Your task to perform on an android device: toggle javascript in the chrome app Image 0: 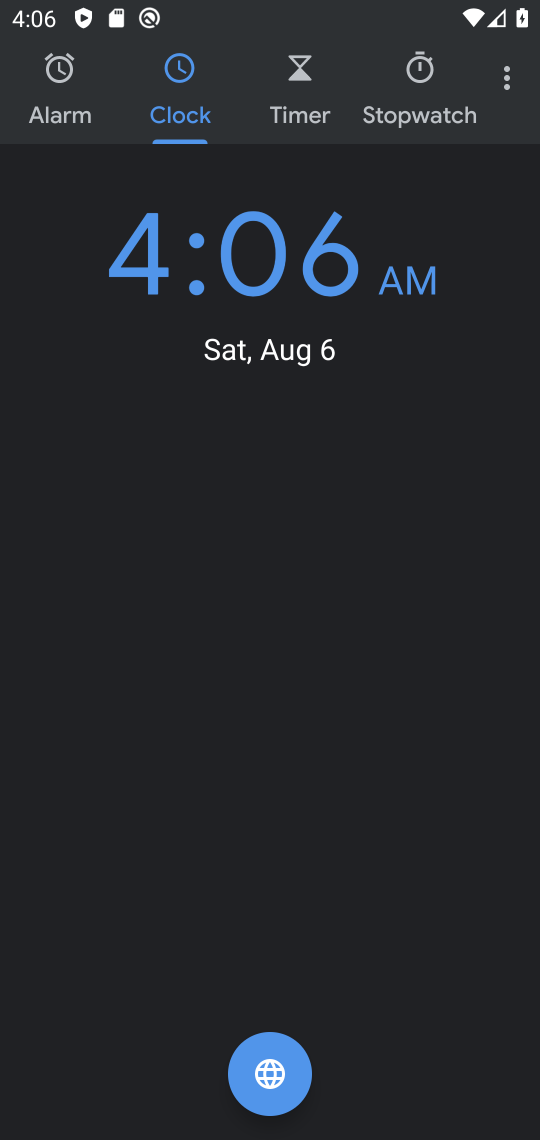
Step 0: press home button
Your task to perform on an android device: toggle javascript in the chrome app Image 1: 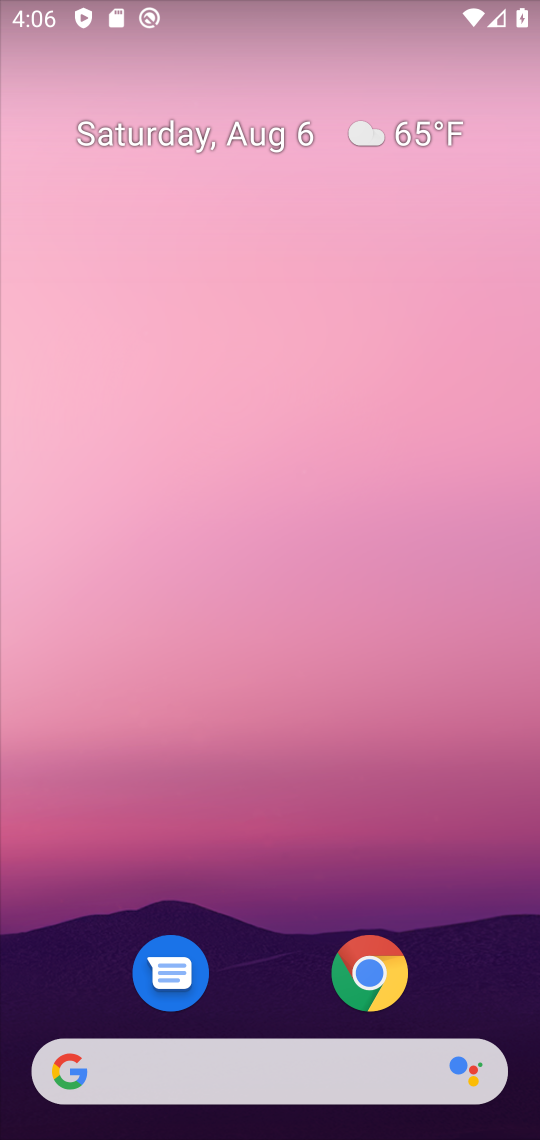
Step 1: drag from (279, 956) to (356, 231)
Your task to perform on an android device: toggle javascript in the chrome app Image 2: 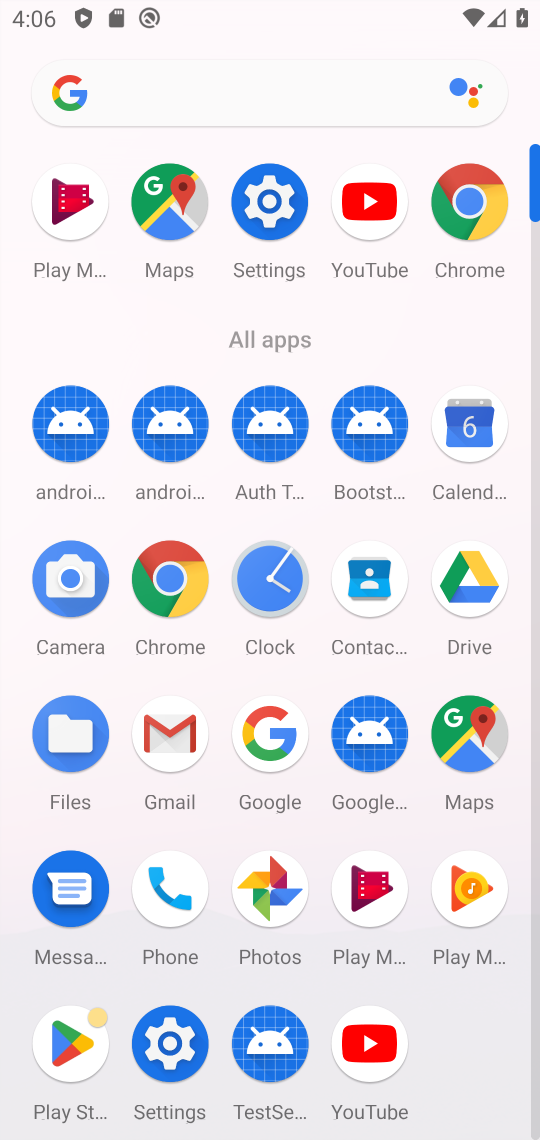
Step 2: click (171, 578)
Your task to perform on an android device: toggle javascript in the chrome app Image 3: 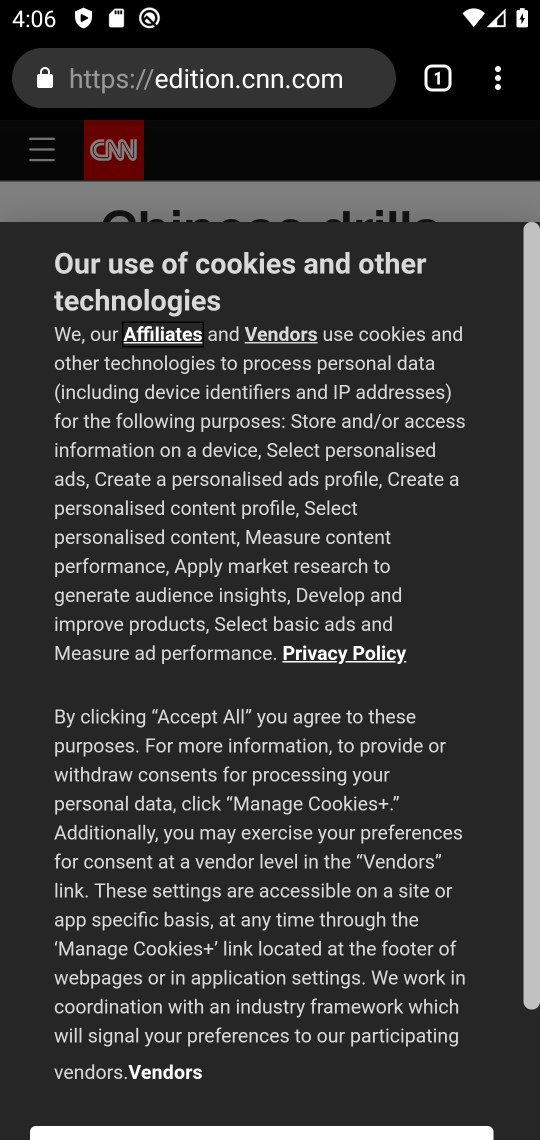
Step 3: drag from (502, 68) to (217, 869)
Your task to perform on an android device: toggle javascript in the chrome app Image 4: 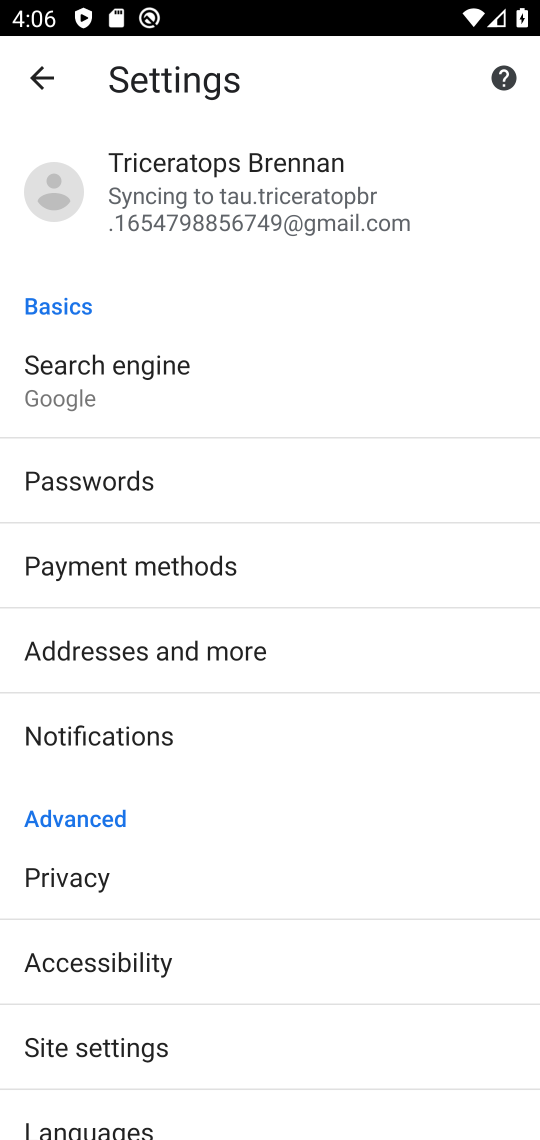
Step 4: drag from (313, 980) to (406, 327)
Your task to perform on an android device: toggle javascript in the chrome app Image 5: 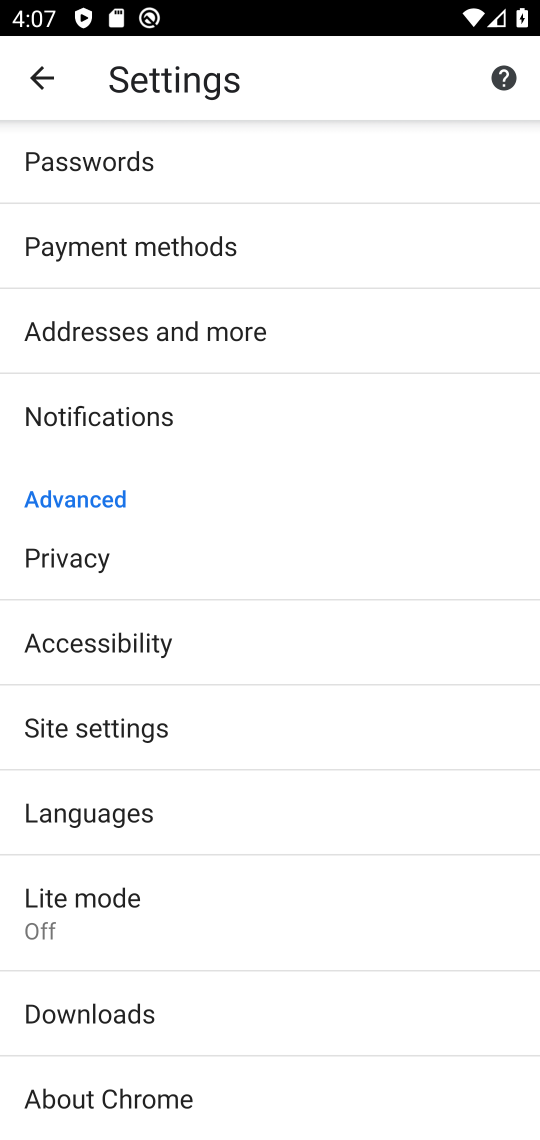
Step 5: click (79, 728)
Your task to perform on an android device: toggle javascript in the chrome app Image 6: 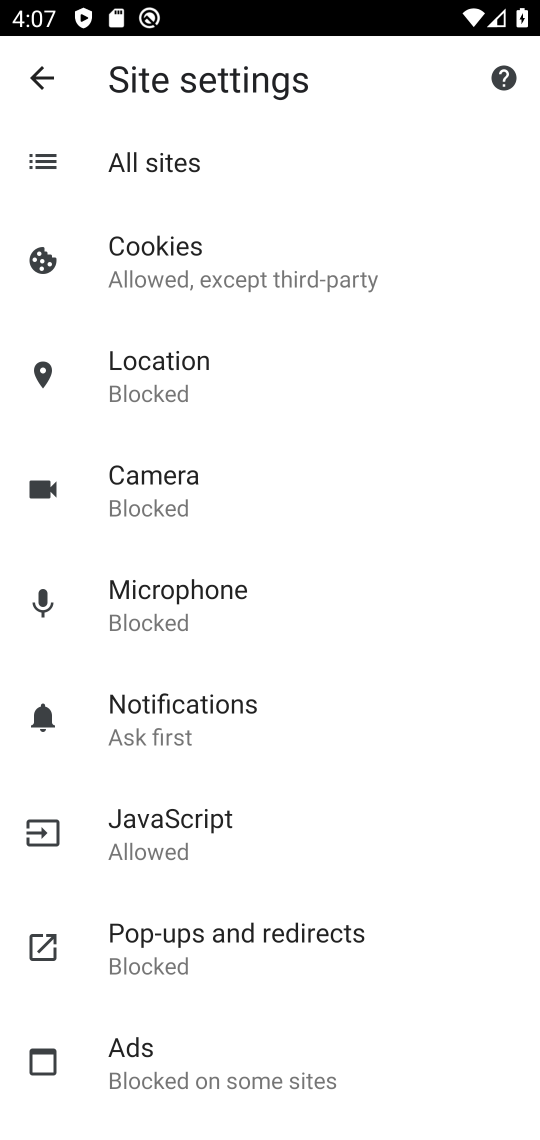
Step 6: click (153, 829)
Your task to perform on an android device: toggle javascript in the chrome app Image 7: 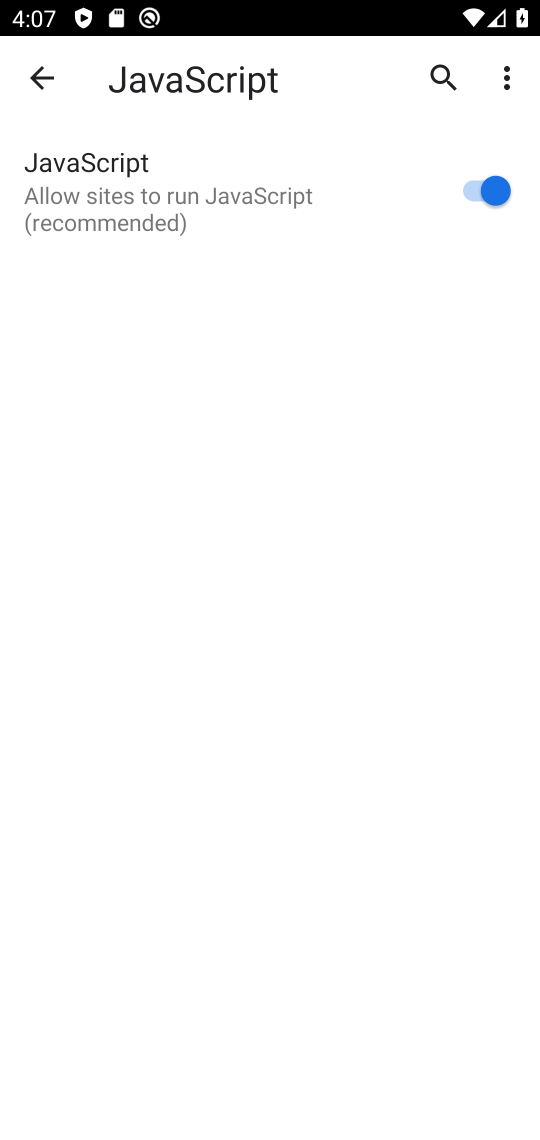
Step 7: click (484, 180)
Your task to perform on an android device: toggle javascript in the chrome app Image 8: 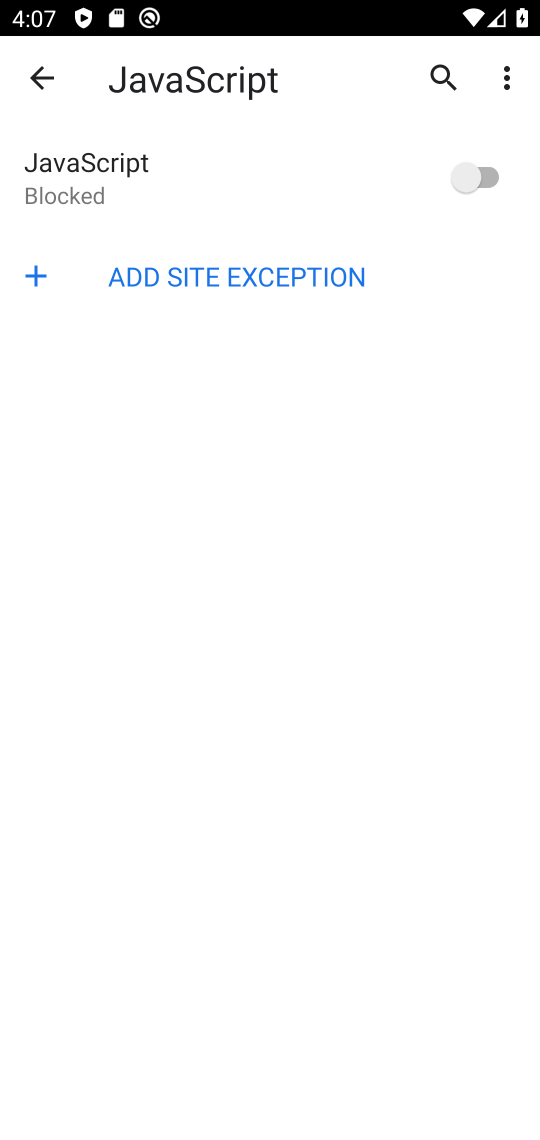
Step 8: task complete